Your task to perform on an android device: Toggle the flashlight Image 0: 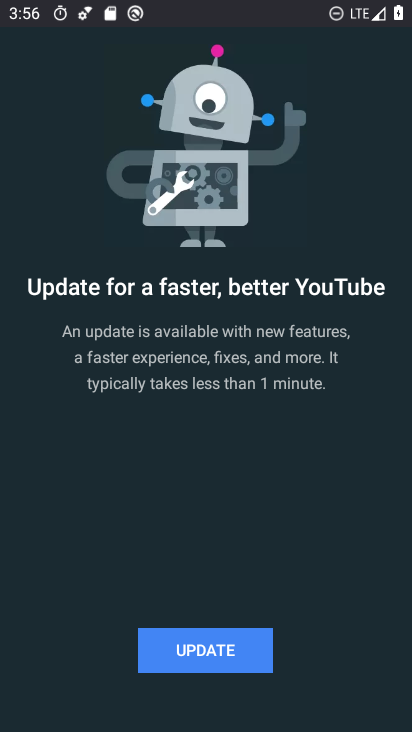
Step 0: press home button
Your task to perform on an android device: Toggle the flashlight Image 1: 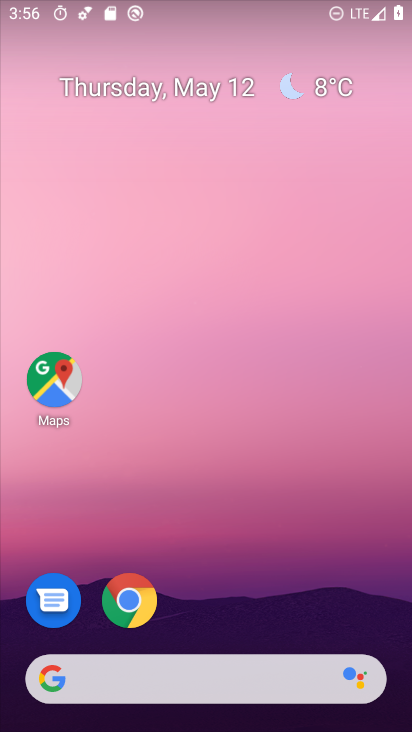
Step 1: drag from (229, 579) to (224, 284)
Your task to perform on an android device: Toggle the flashlight Image 2: 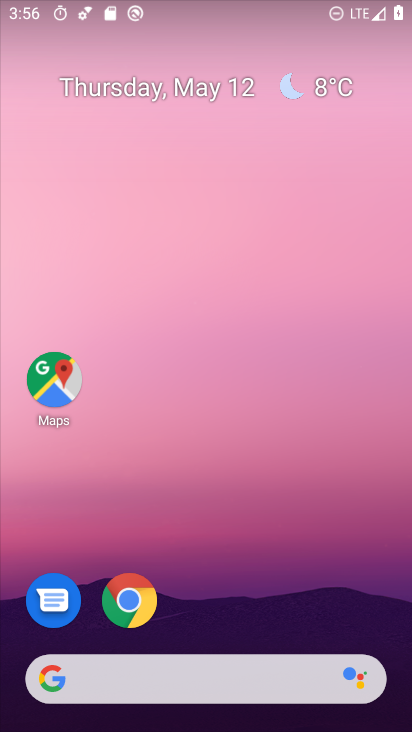
Step 2: drag from (216, 723) to (224, 135)
Your task to perform on an android device: Toggle the flashlight Image 3: 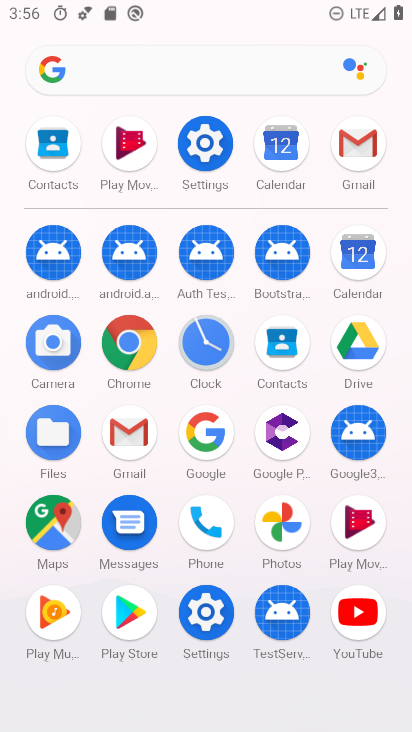
Step 3: click (202, 147)
Your task to perform on an android device: Toggle the flashlight Image 4: 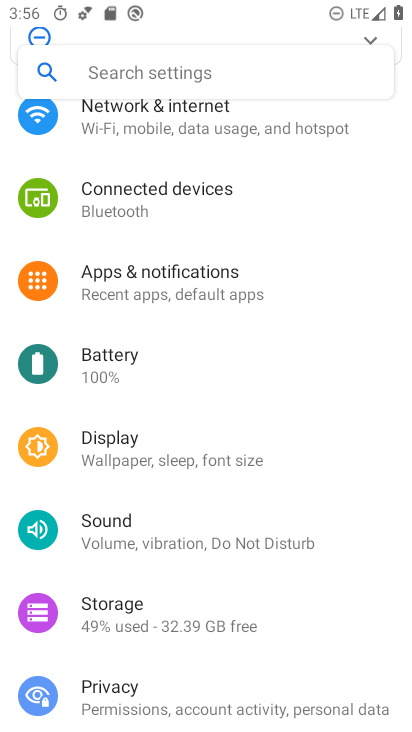
Step 4: task complete